Your task to perform on an android device: check android version Image 0: 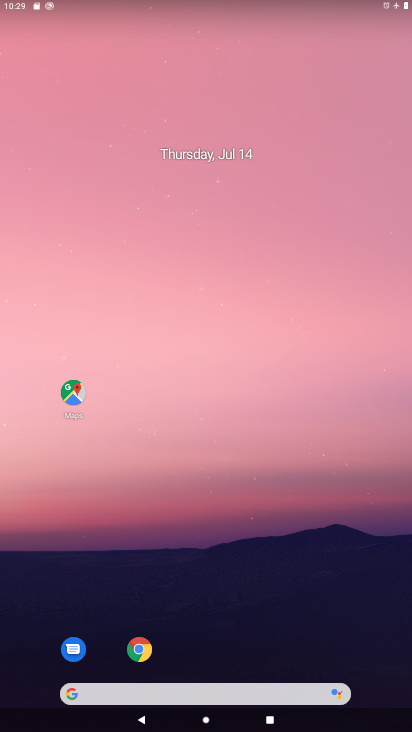
Step 0: drag from (78, 653) to (147, 7)
Your task to perform on an android device: check android version Image 1: 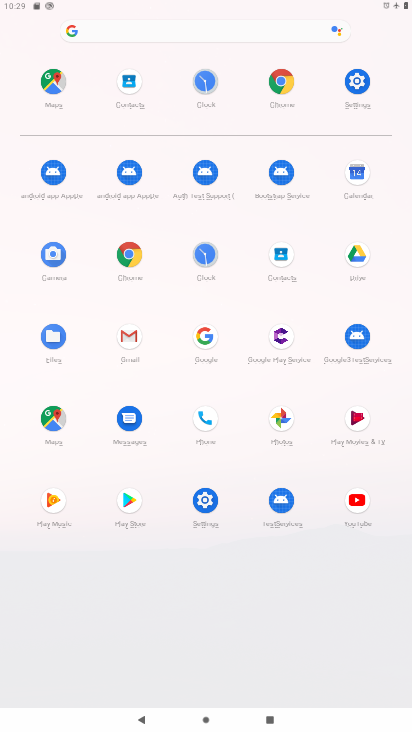
Step 1: click (364, 108)
Your task to perform on an android device: check android version Image 2: 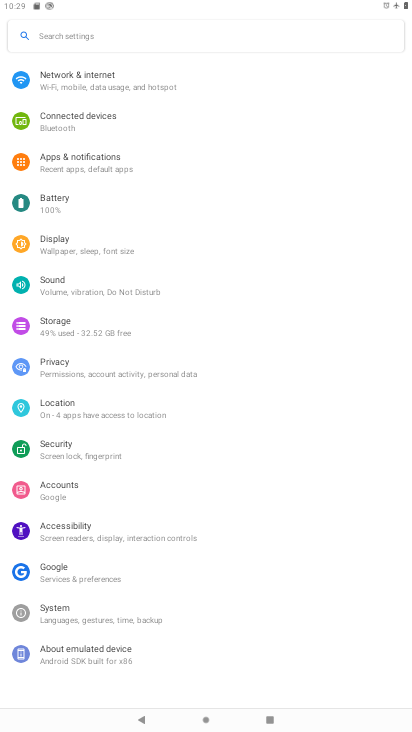
Step 2: drag from (197, 658) to (282, 50)
Your task to perform on an android device: check android version Image 3: 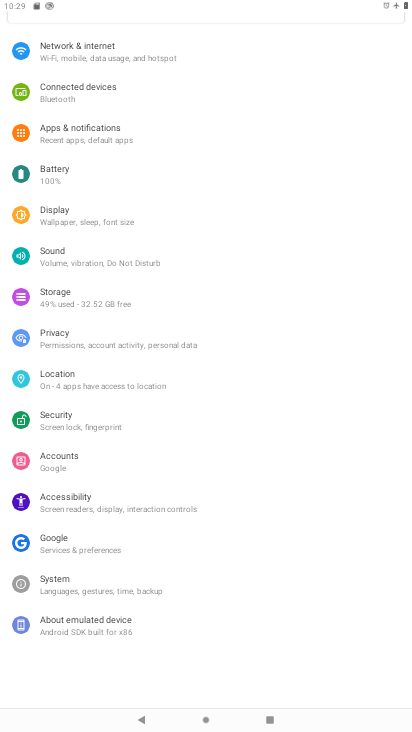
Step 3: click (117, 623)
Your task to perform on an android device: check android version Image 4: 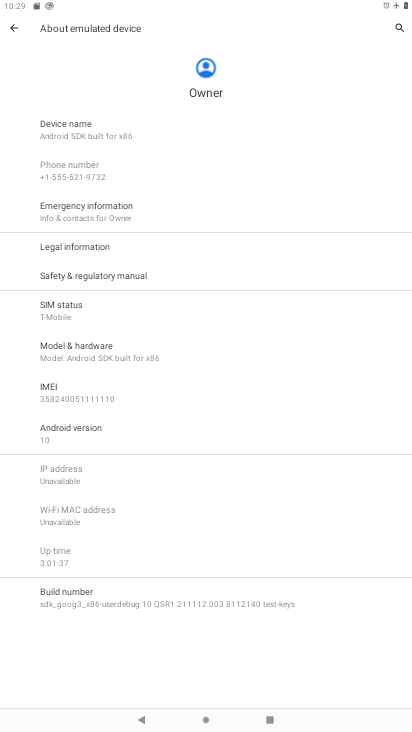
Step 4: task complete